Your task to perform on an android device: change notification settings in the gmail app Image 0: 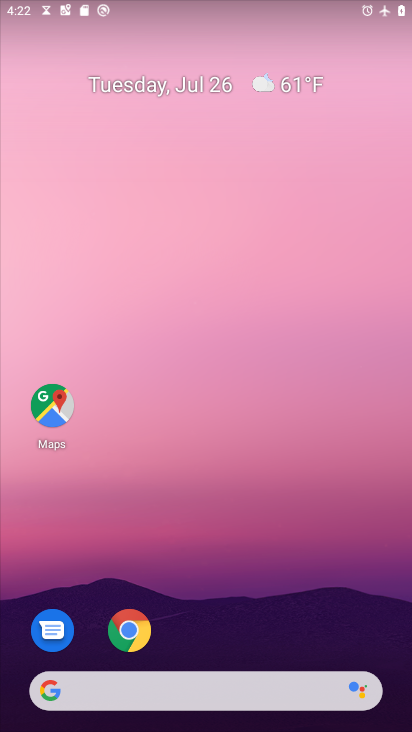
Step 0: drag from (252, 671) to (197, 183)
Your task to perform on an android device: change notification settings in the gmail app Image 1: 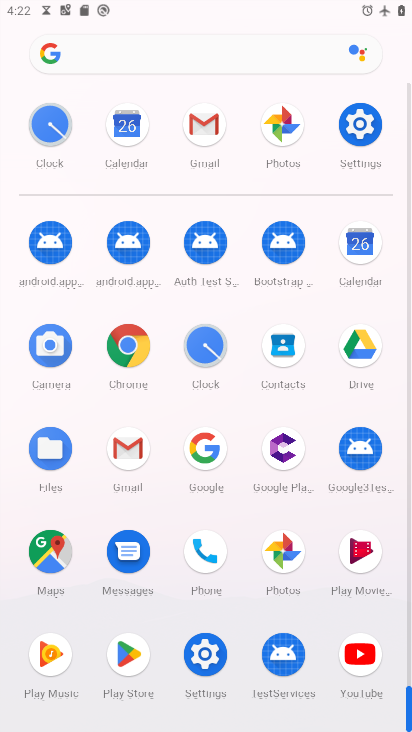
Step 1: click (199, 105)
Your task to perform on an android device: change notification settings in the gmail app Image 2: 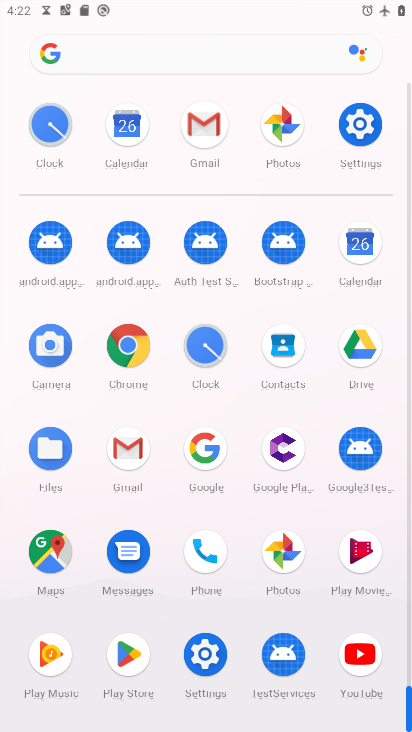
Step 2: click (194, 111)
Your task to perform on an android device: change notification settings in the gmail app Image 3: 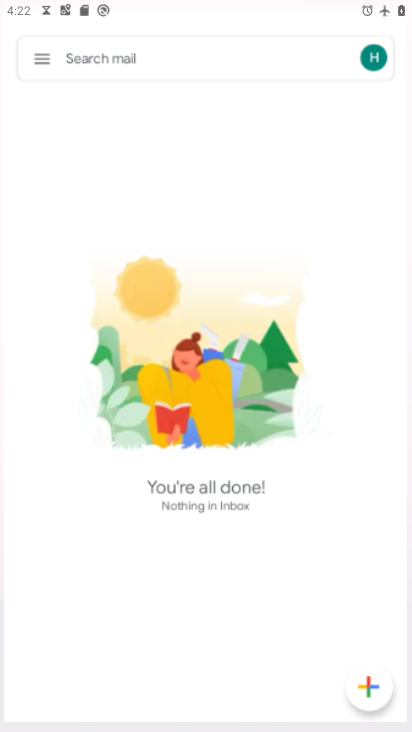
Step 3: click (197, 118)
Your task to perform on an android device: change notification settings in the gmail app Image 4: 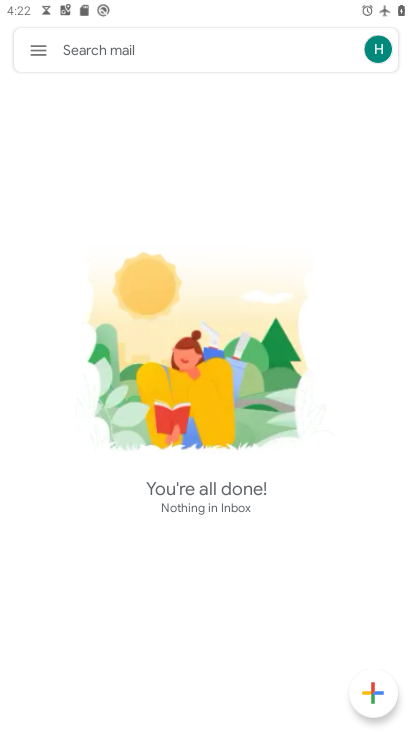
Step 4: click (196, 119)
Your task to perform on an android device: change notification settings in the gmail app Image 5: 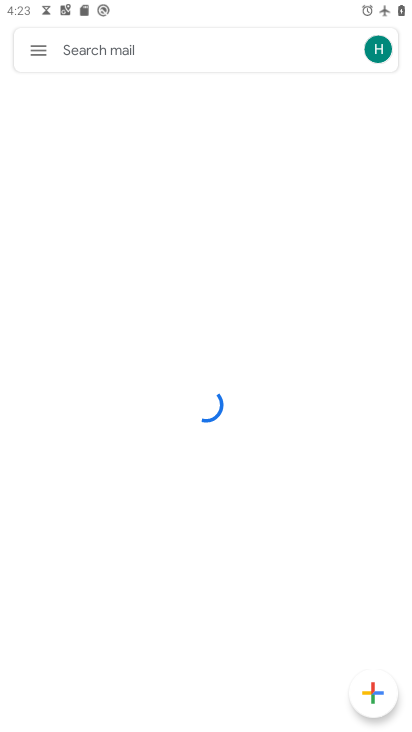
Step 5: click (40, 59)
Your task to perform on an android device: change notification settings in the gmail app Image 6: 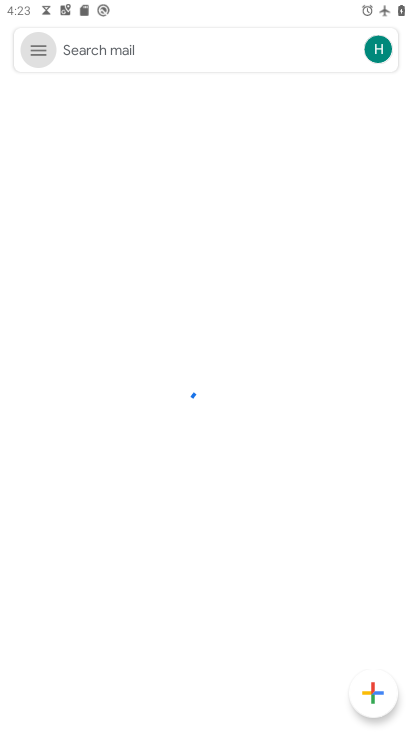
Step 6: click (39, 58)
Your task to perform on an android device: change notification settings in the gmail app Image 7: 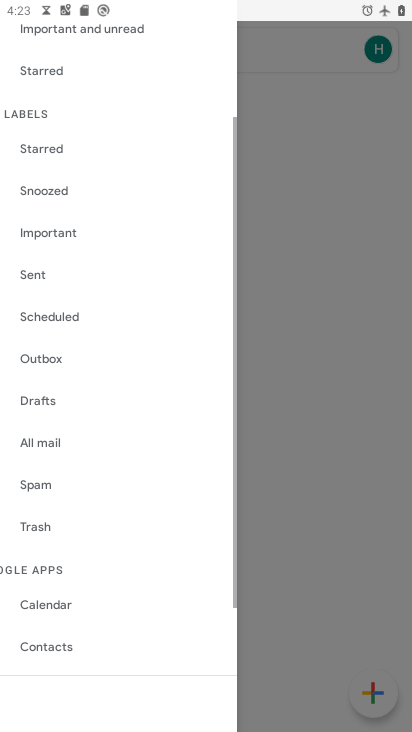
Step 7: click (39, 58)
Your task to perform on an android device: change notification settings in the gmail app Image 8: 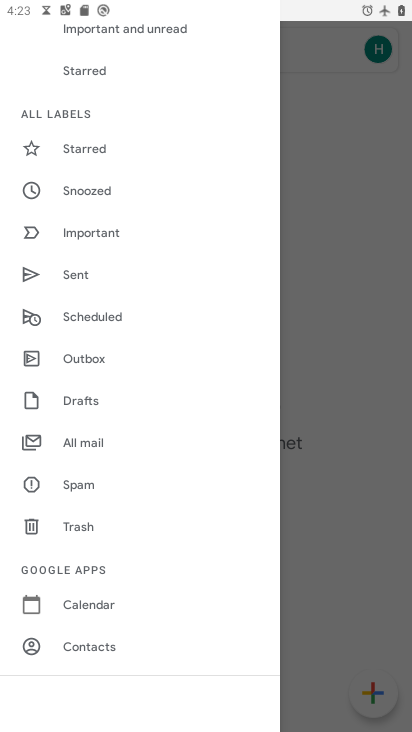
Step 8: drag from (105, 596) to (107, 144)
Your task to perform on an android device: change notification settings in the gmail app Image 9: 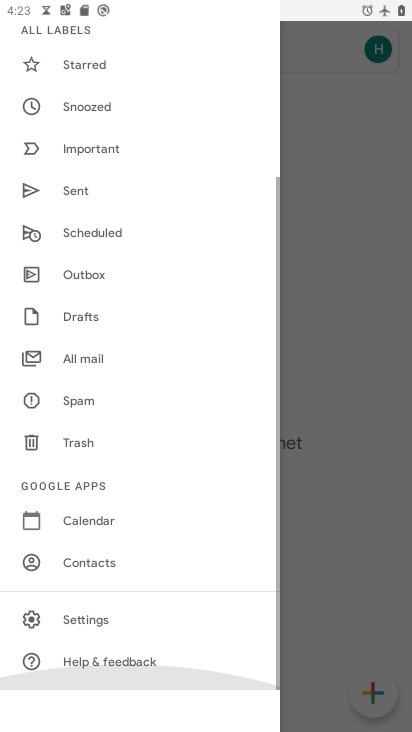
Step 9: drag from (106, 582) to (134, 192)
Your task to perform on an android device: change notification settings in the gmail app Image 10: 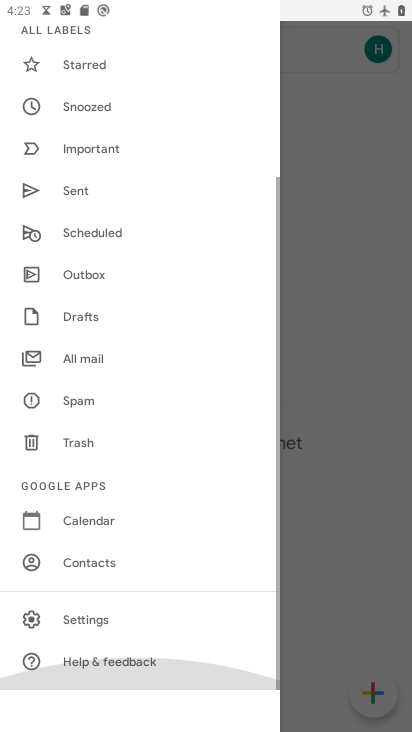
Step 10: drag from (137, 415) to (137, 220)
Your task to perform on an android device: change notification settings in the gmail app Image 11: 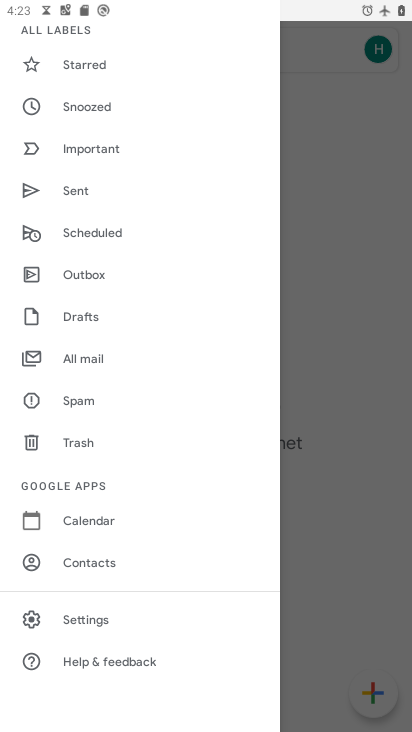
Step 11: click (83, 622)
Your task to perform on an android device: change notification settings in the gmail app Image 12: 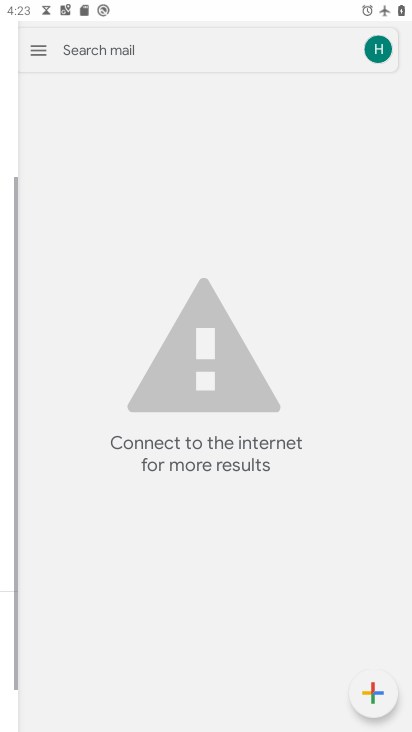
Step 12: click (83, 620)
Your task to perform on an android device: change notification settings in the gmail app Image 13: 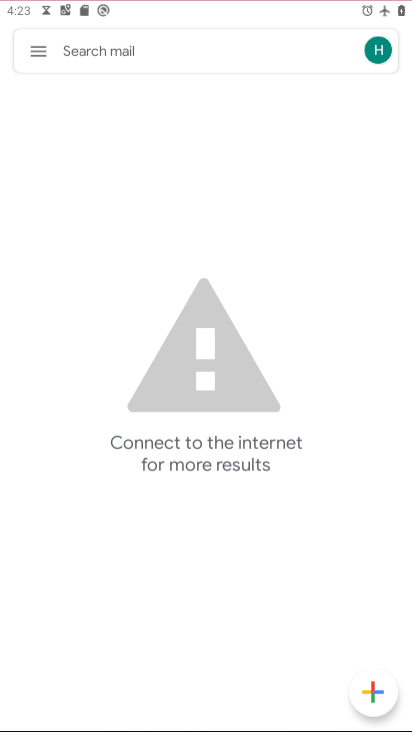
Step 13: click (82, 620)
Your task to perform on an android device: change notification settings in the gmail app Image 14: 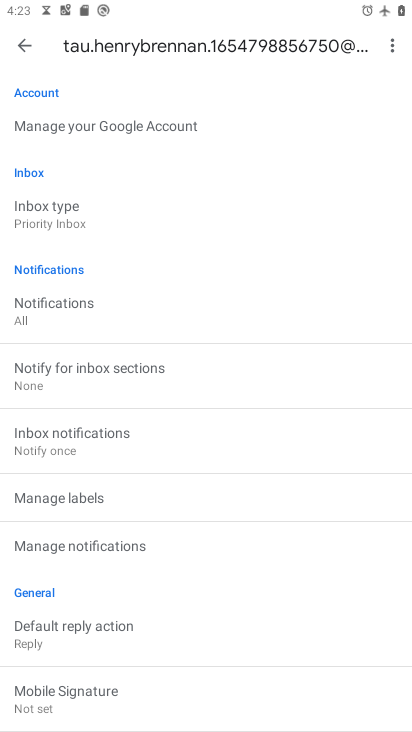
Step 14: click (54, 304)
Your task to perform on an android device: change notification settings in the gmail app Image 15: 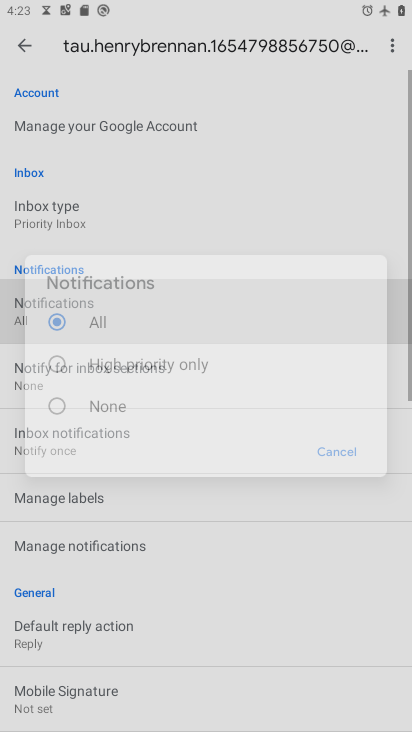
Step 15: click (52, 305)
Your task to perform on an android device: change notification settings in the gmail app Image 16: 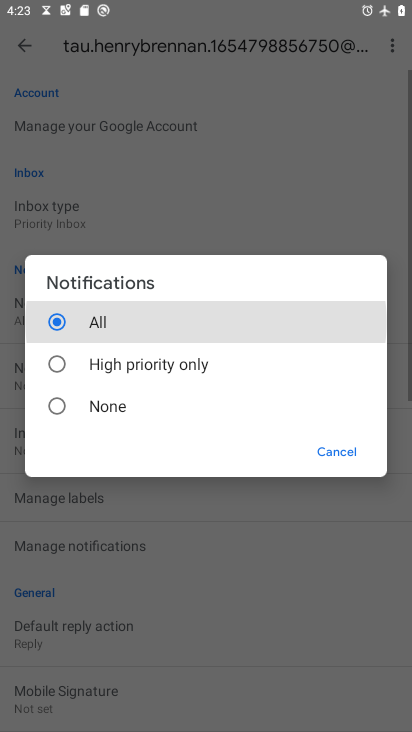
Step 16: click (51, 309)
Your task to perform on an android device: change notification settings in the gmail app Image 17: 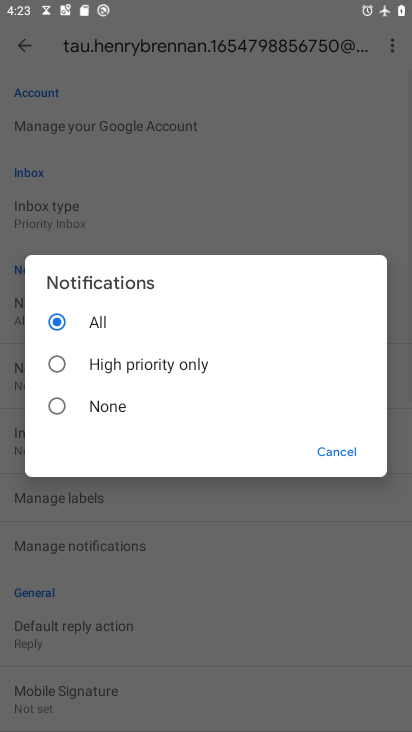
Step 17: click (53, 369)
Your task to perform on an android device: change notification settings in the gmail app Image 18: 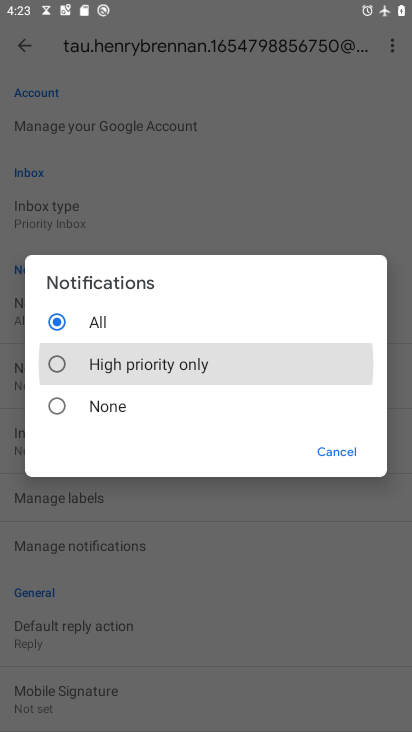
Step 18: click (53, 365)
Your task to perform on an android device: change notification settings in the gmail app Image 19: 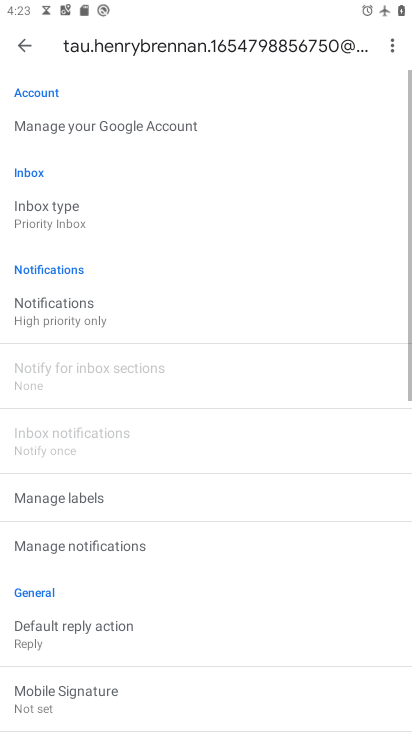
Step 19: task complete